Your task to perform on an android device: open app "Google Play Games" (install if not already installed) Image 0: 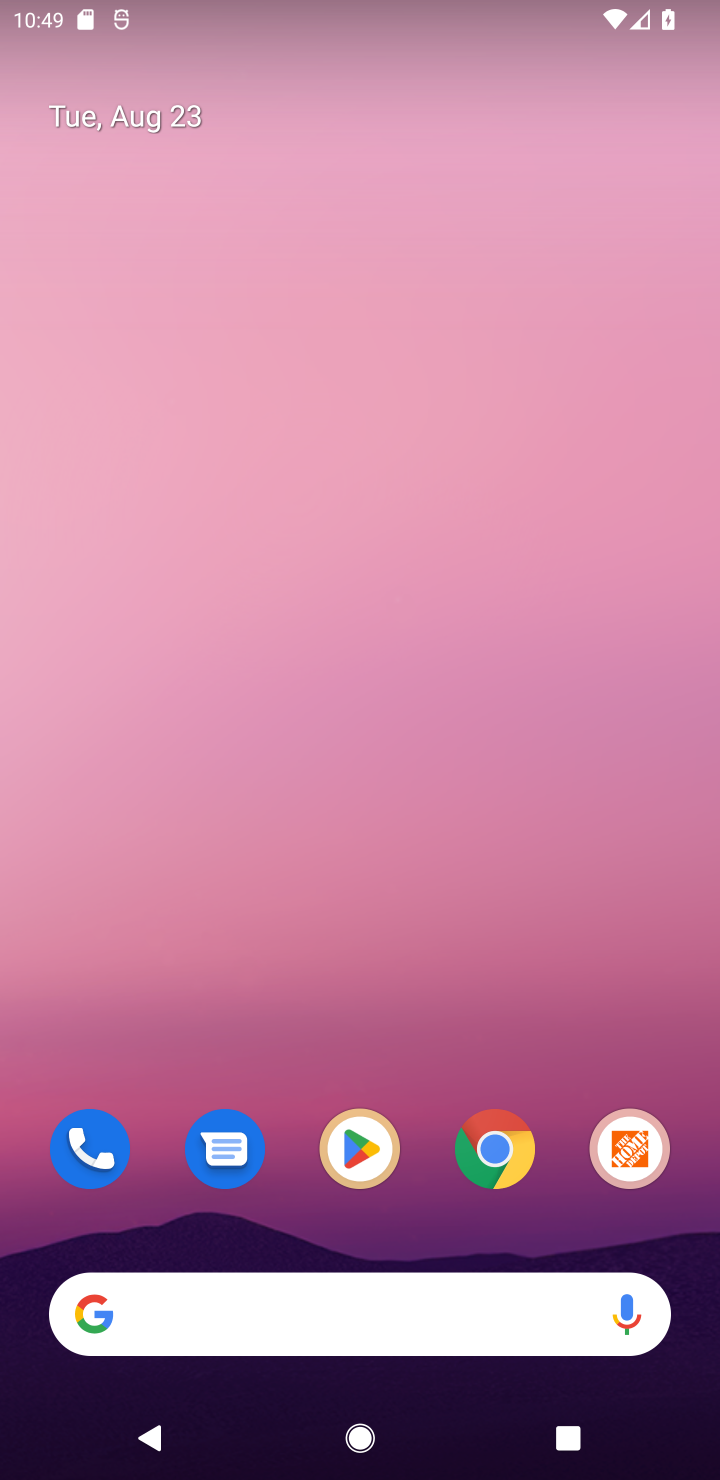
Step 0: click (372, 1163)
Your task to perform on an android device: open app "Google Play Games" (install if not already installed) Image 1: 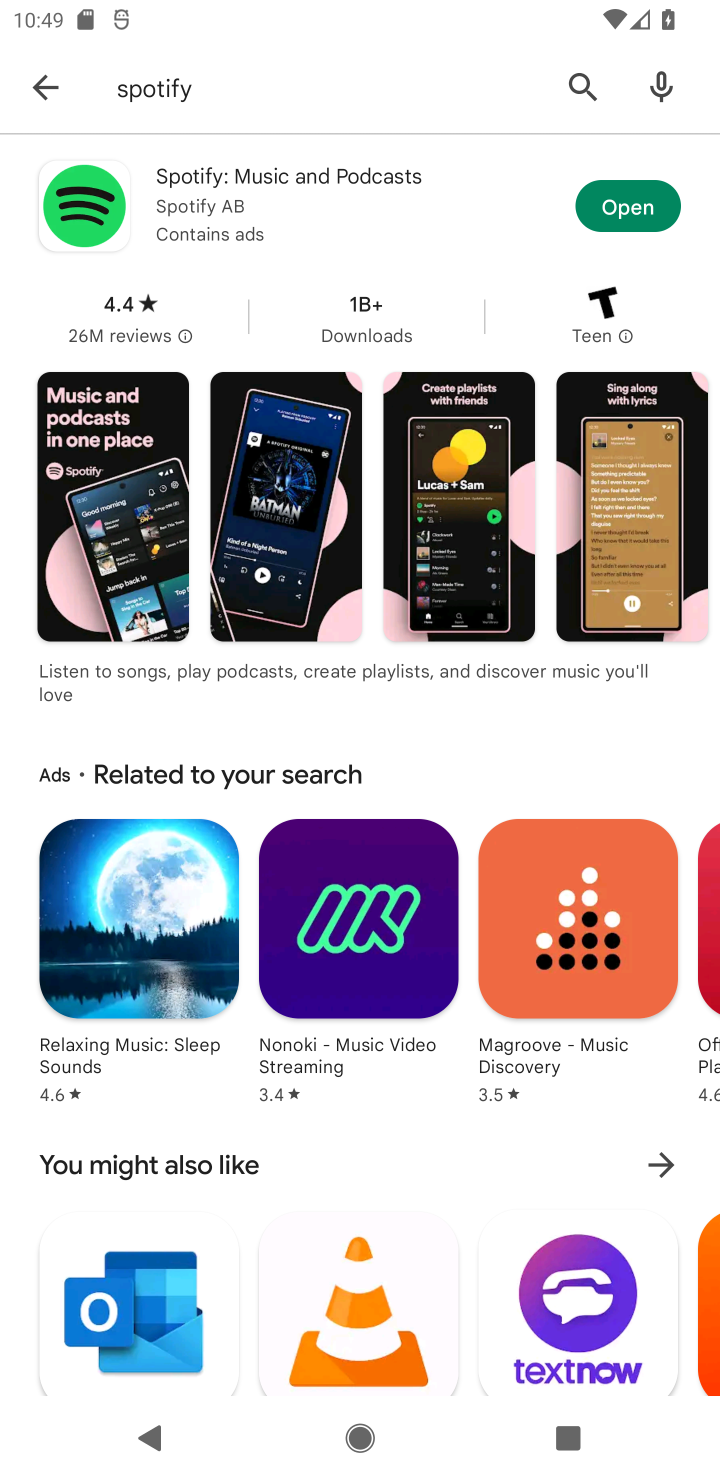
Step 1: click (570, 76)
Your task to perform on an android device: open app "Google Play Games" (install if not already installed) Image 2: 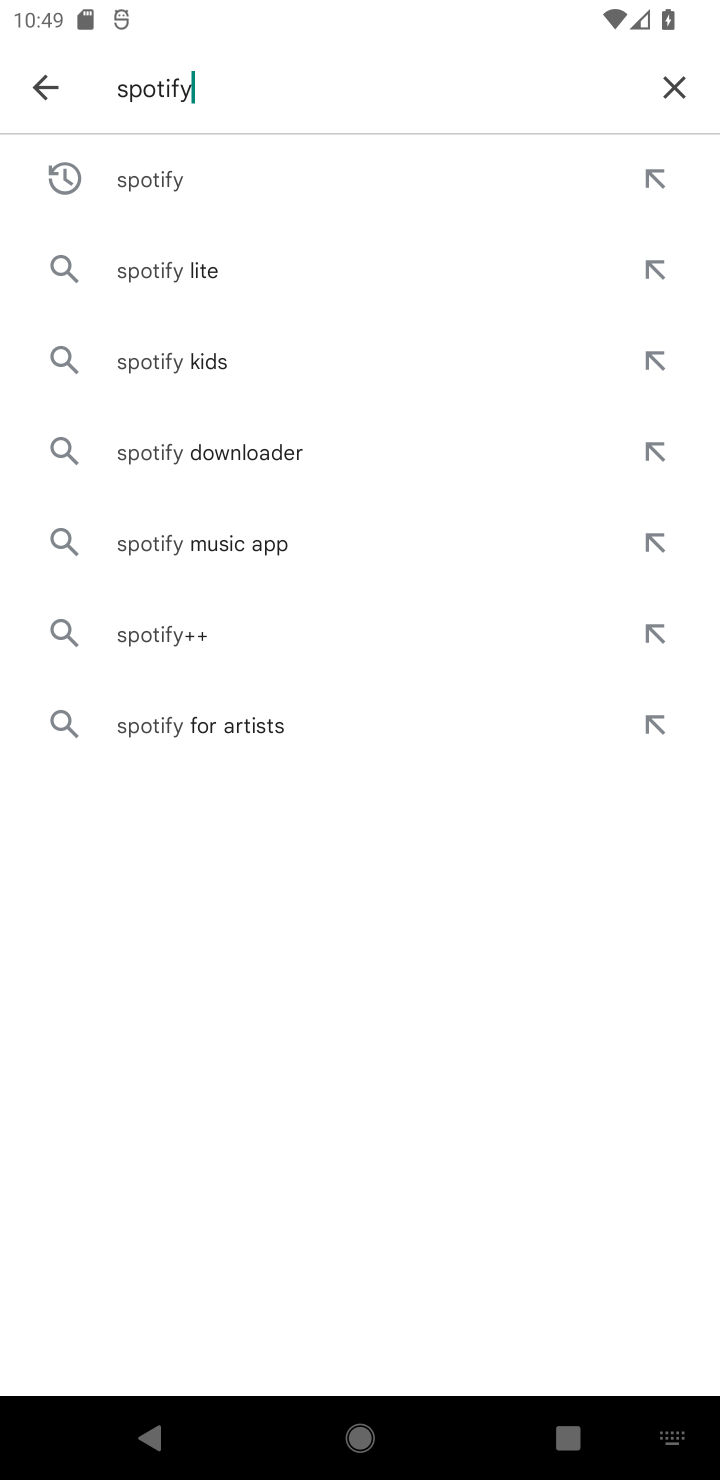
Step 2: click (668, 90)
Your task to perform on an android device: open app "Google Play Games" (install if not already installed) Image 3: 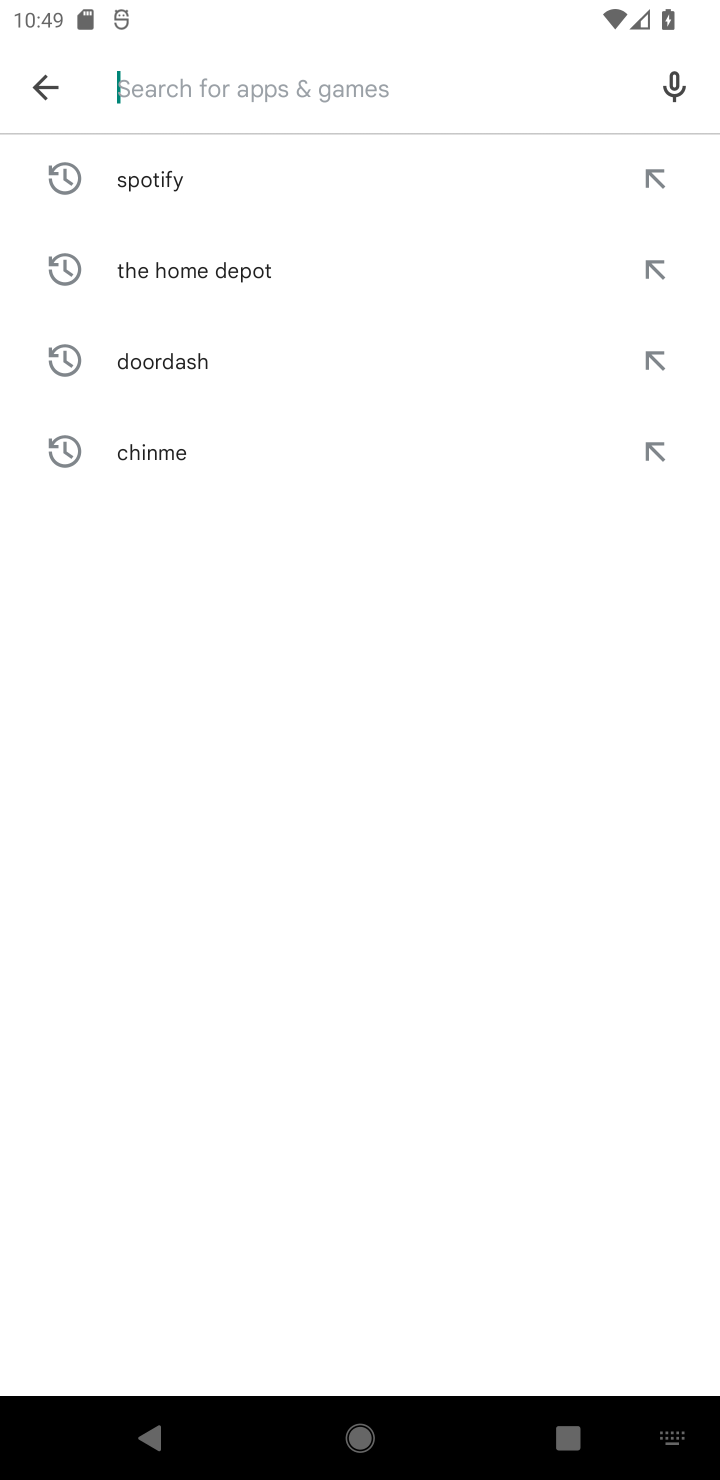
Step 3: type "google play movies"
Your task to perform on an android device: open app "Google Play Games" (install if not already installed) Image 4: 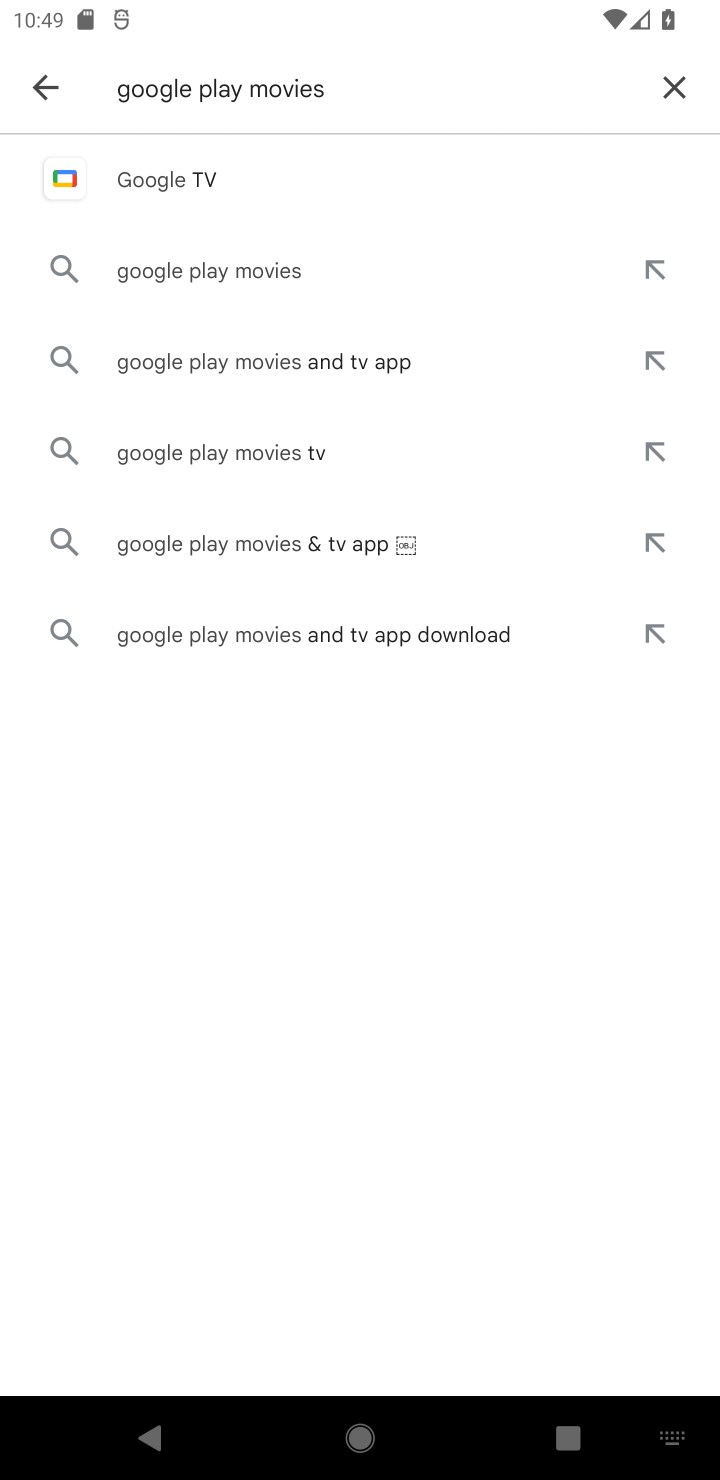
Step 4: click (354, 261)
Your task to perform on an android device: open app "Google Play Games" (install if not already installed) Image 5: 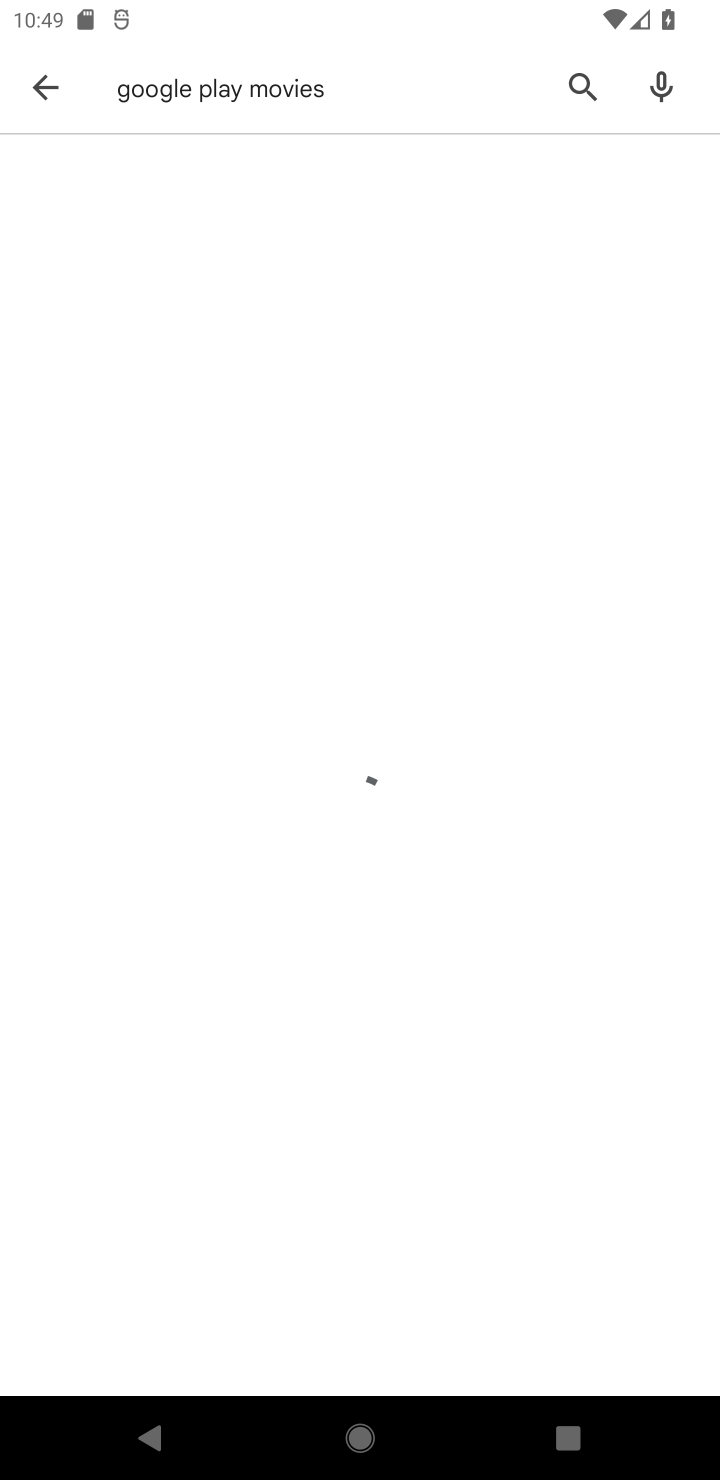
Step 5: task complete